Your task to perform on an android device: open app "Skype" (install if not already installed) Image 0: 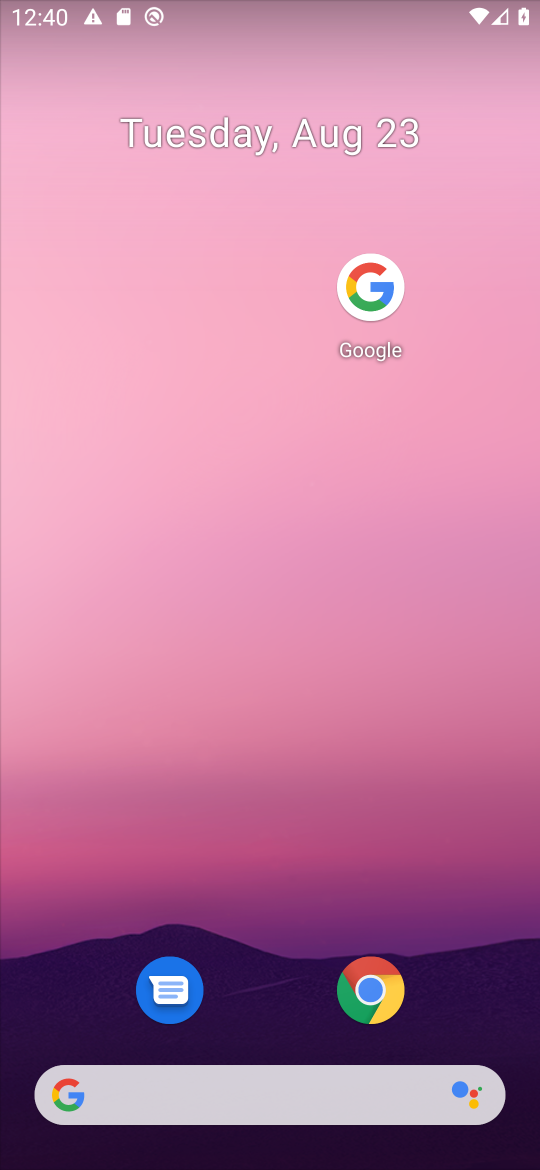
Step 0: drag from (276, 1040) to (258, 507)
Your task to perform on an android device: open app "Skype" (install if not already installed) Image 1: 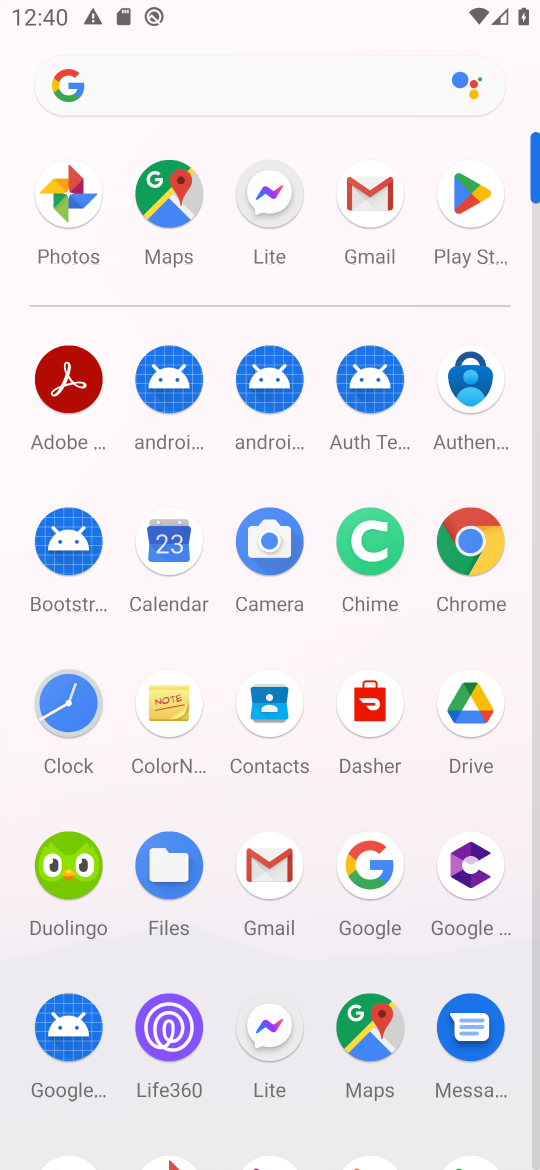
Step 1: click (454, 195)
Your task to perform on an android device: open app "Skype" (install if not already installed) Image 2: 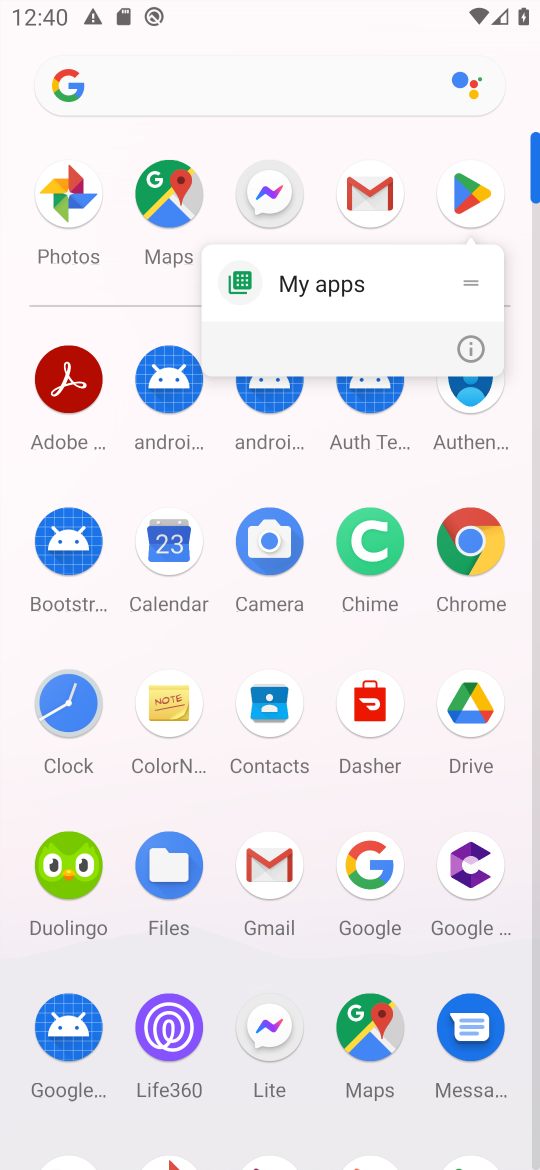
Step 2: click (473, 185)
Your task to perform on an android device: open app "Skype" (install if not already installed) Image 3: 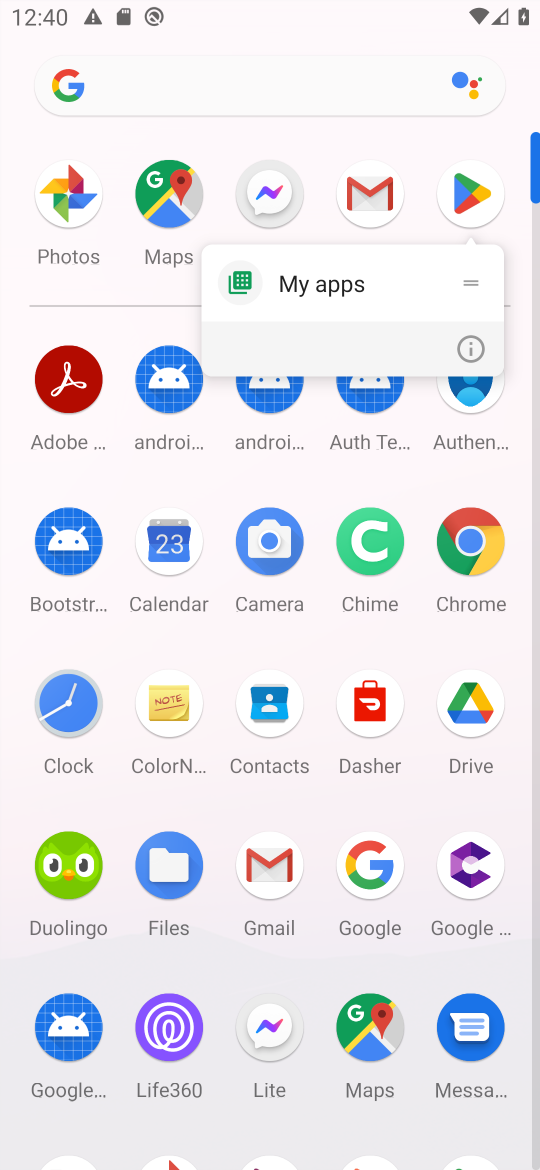
Step 3: click (473, 185)
Your task to perform on an android device: open app "Skype" (install if not already installed) Image 4: 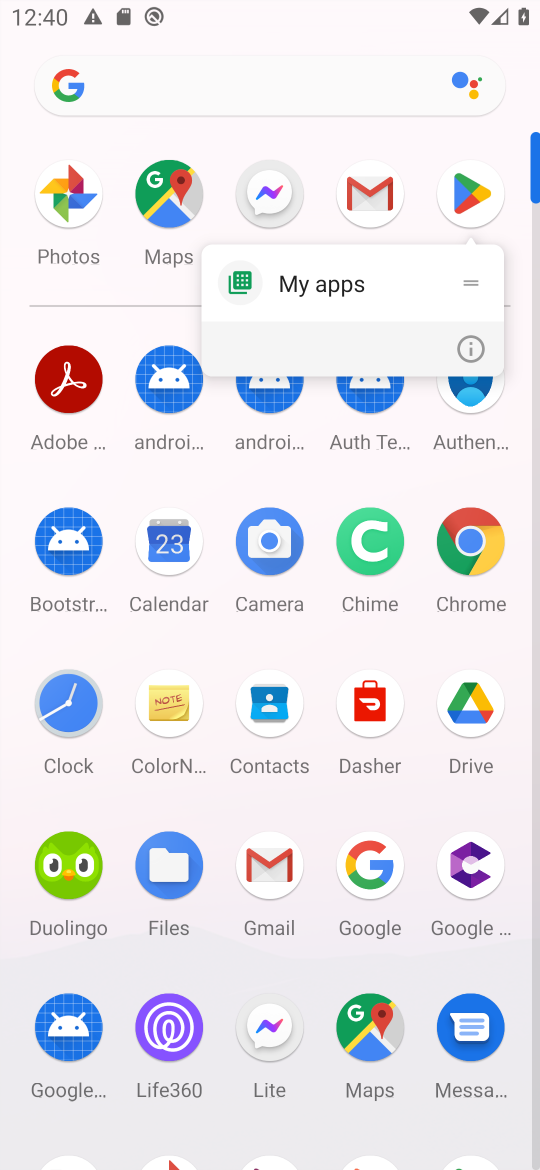
Step 4: click (473, 185)
Your task to perform on an android device: open app "Skype" (install if not already installed) Image 5: 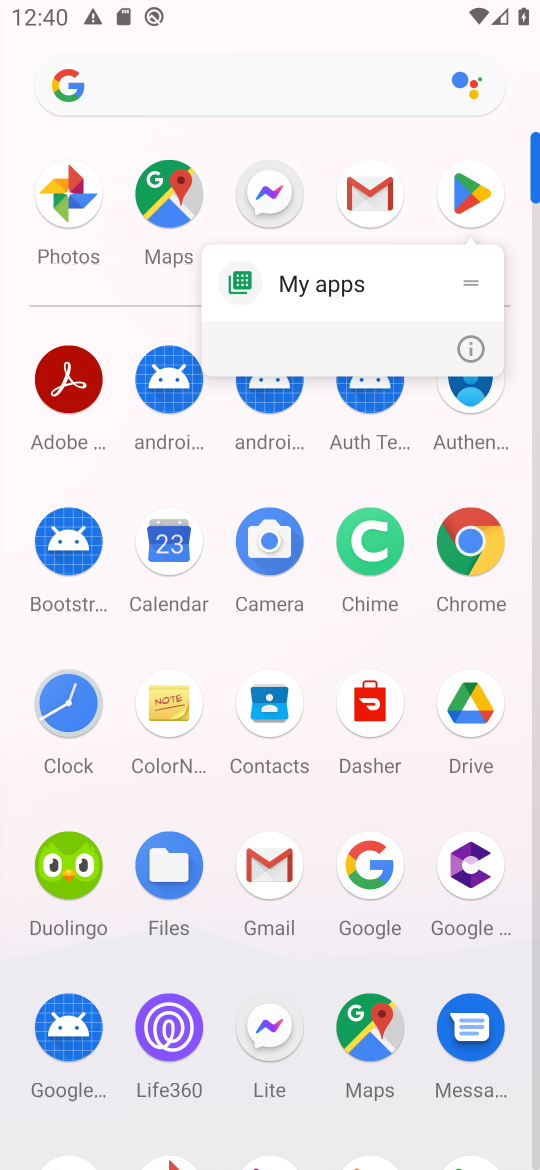
Step 5: click (473, 185)
Your task to perform on an android device: open app "Skype" (install if not already installed) Image 6: 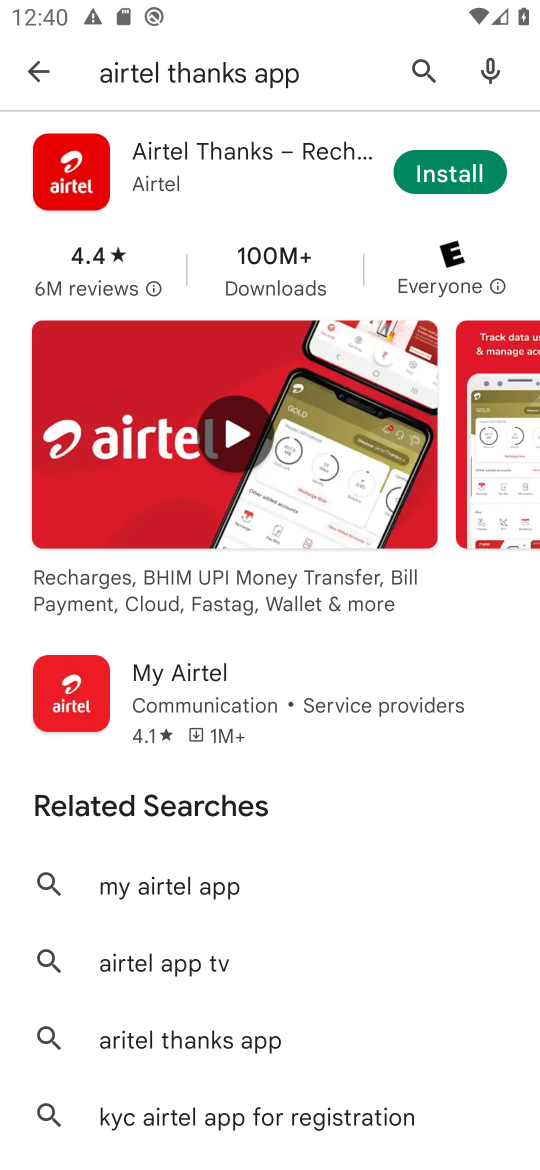
Step 6: click (45, 69)
Your task to perform on an android device: open app "Skype" (install if not already installed) Image 7: 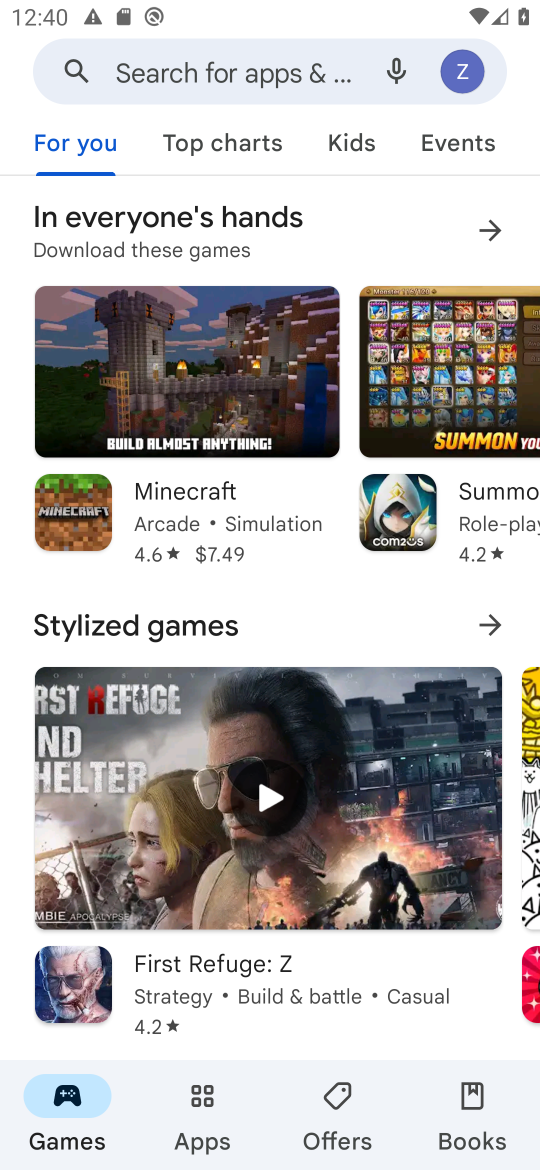
Step 7: click (213, 71)
Your task to perform on an android device: open app "Skype" (install if not already installed) Image 8: 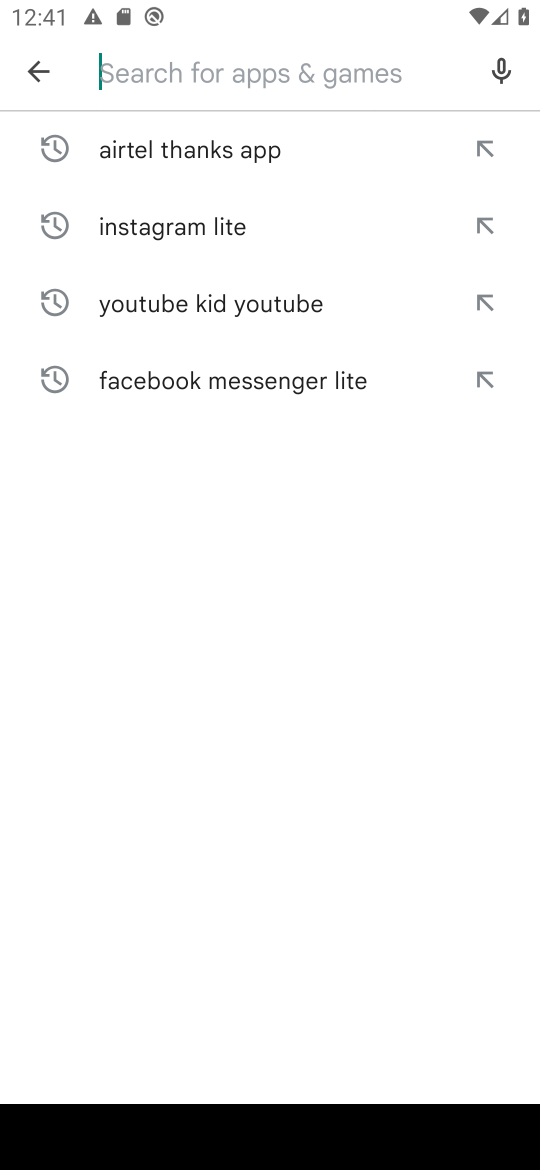
Step 8: type "skype "
Your task to perform on an android device: open app "Skype" (install if not already installed) Image 9: 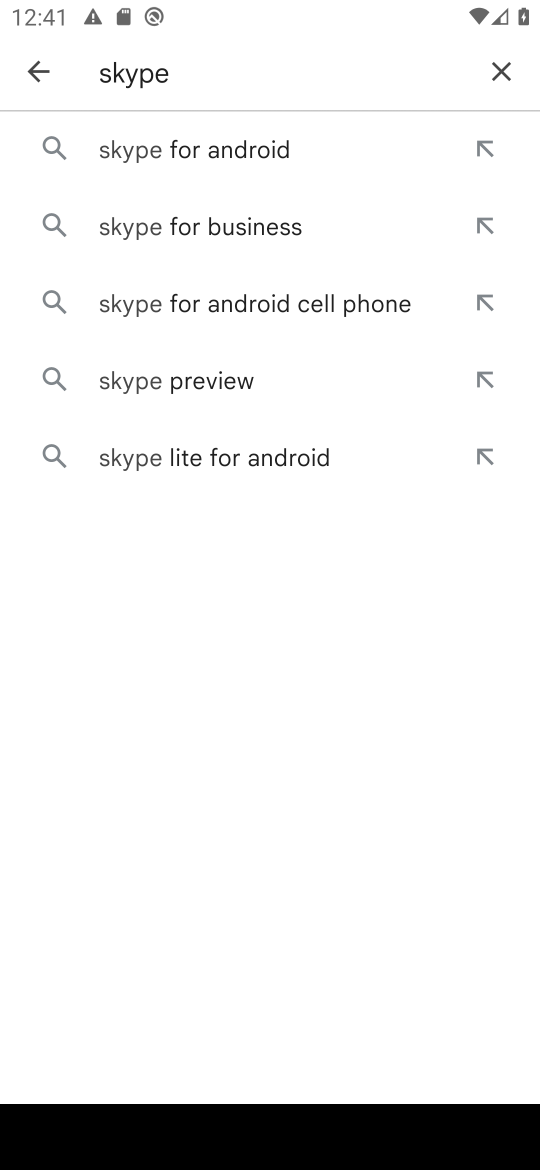
Step 9: click (249, 139)
Your task to perform on an android device: open app "Skype" (install if not already installed) Image 10: 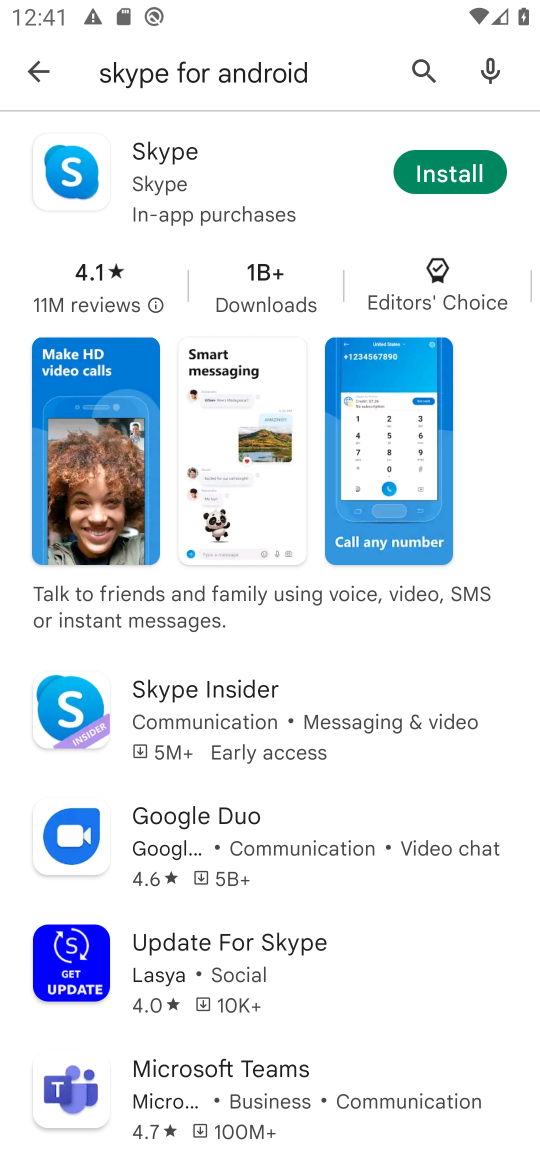
Step 10: click (457, 176)
Your task to perform on an android device: open app "Skype" (install if not already installed) Image 11: 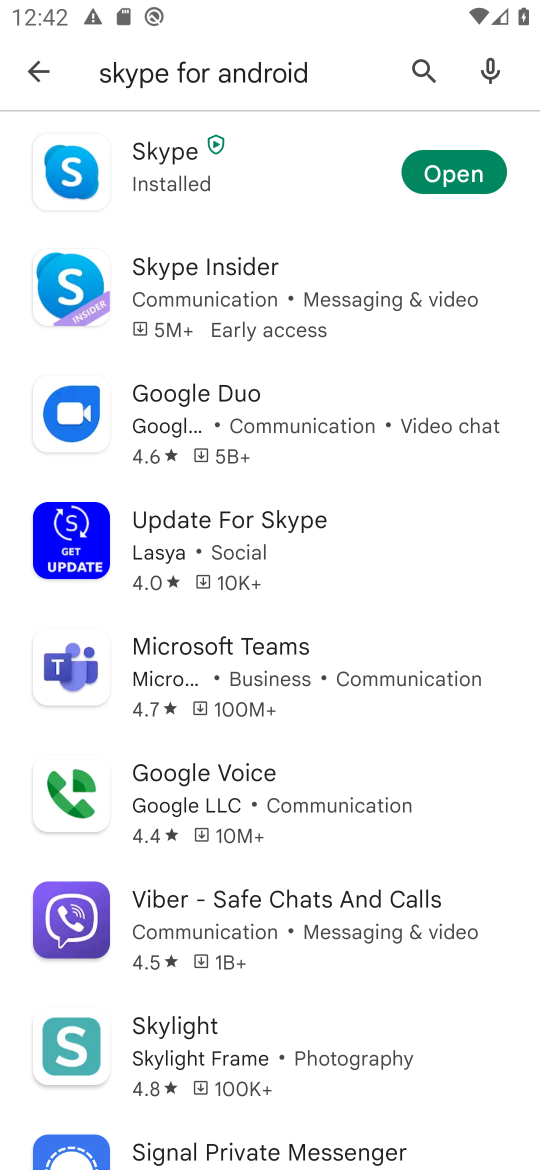
Step 11: click (259, 169)
Your task to perform on an android device: open app "Skype" (install if not already installed) Image 12: 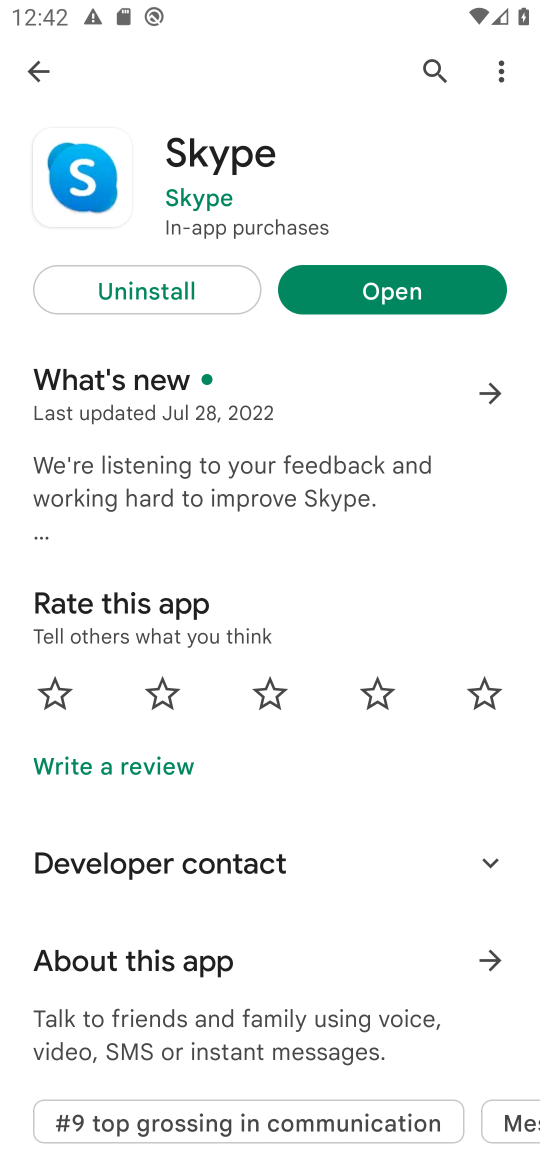
Step 12: task complete